Your task to perform on an android device: find snoozed emails in the gmail app Image 0: 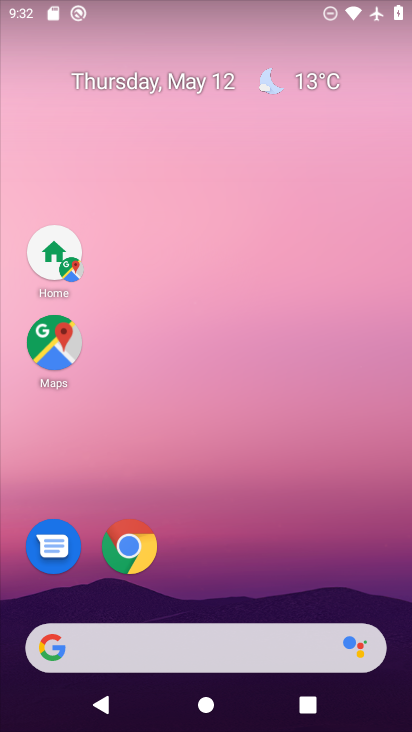
Step 0: press home button
Your task to perform on an android device: find snoozed emails in the gmail app Image 1: 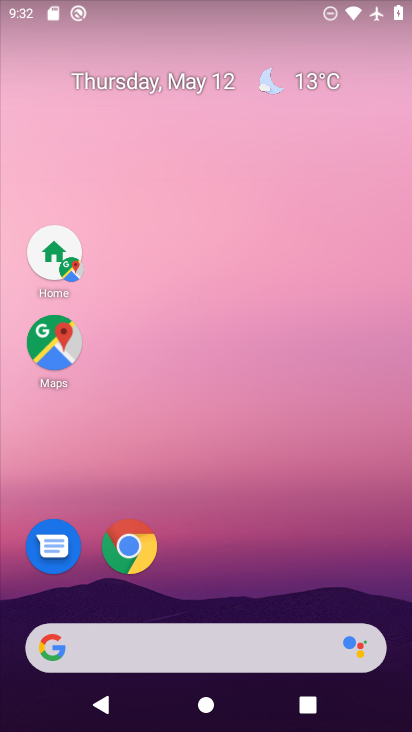
Step 1: drag from (174, 646) to (313, 126)
Your task to perform on an android device: find snoozed emails in the gmail app Image 2: 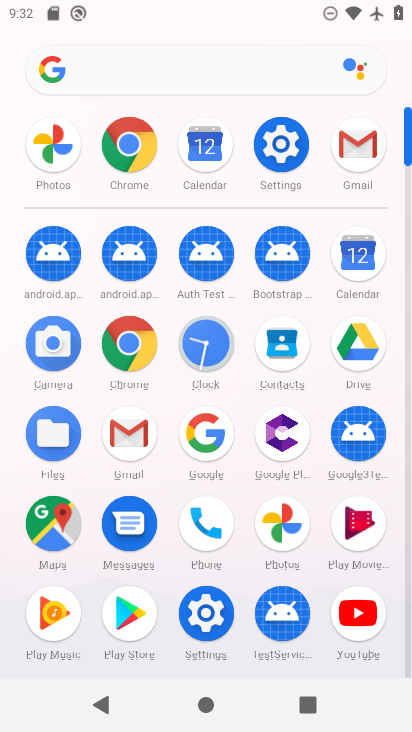
Step 2: click (352, 154)
Your task to perform on an android device: find snoozed emails in the gmail app Image 3: 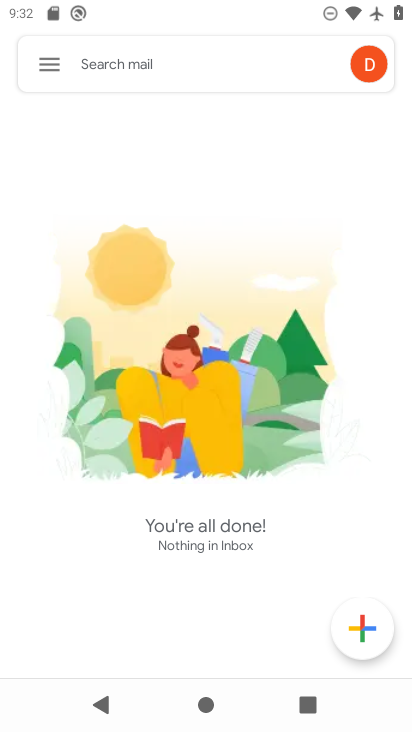
Step 3: click (47, 65)
Your task to perform on an android device: find snoozed emails in the gmail app Image 4: 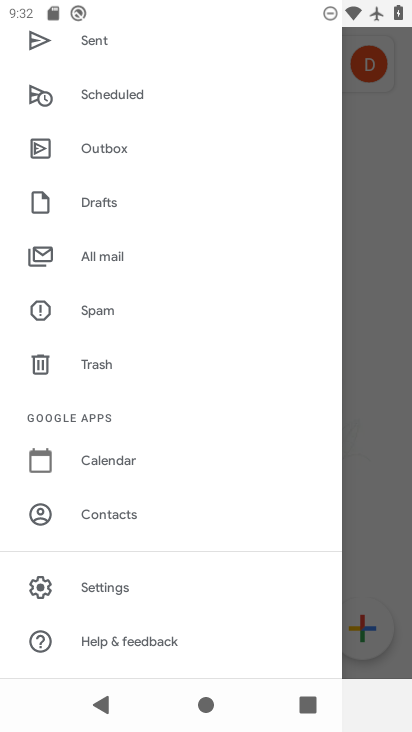
Step 4: drag from (204, 150) to (214, 450)
Your task to perform on an android device: find snoozed emails in the gmail app Image 5: 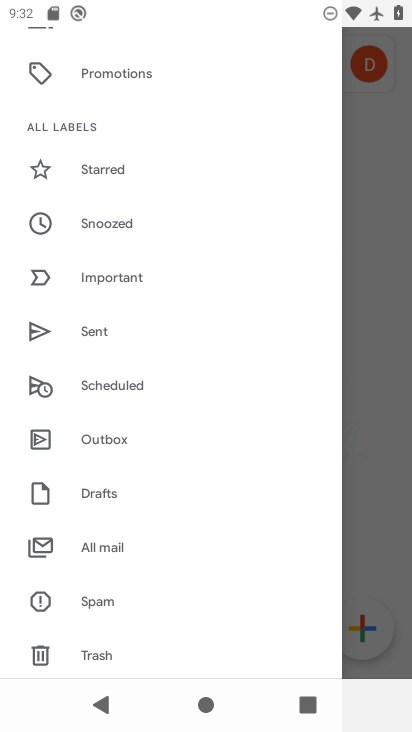
Step 5: click (110, 215)
Your task to perform on an android device: find snoozed emails in the gmail app Image 6: 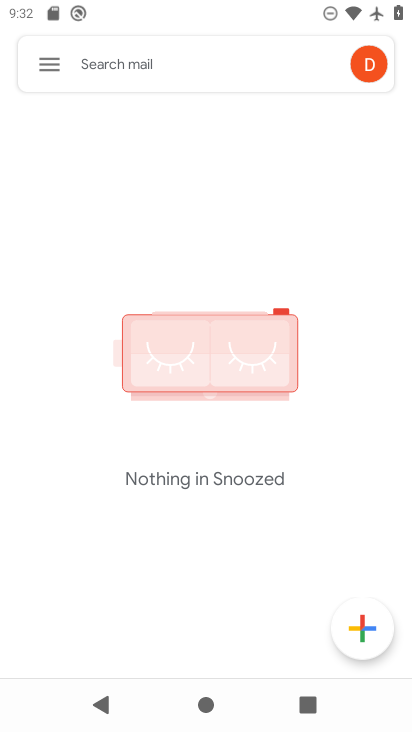
Step 6: task complete